Your task to perform on an android device: Search for Mexican restaurants on Maps Image 0: 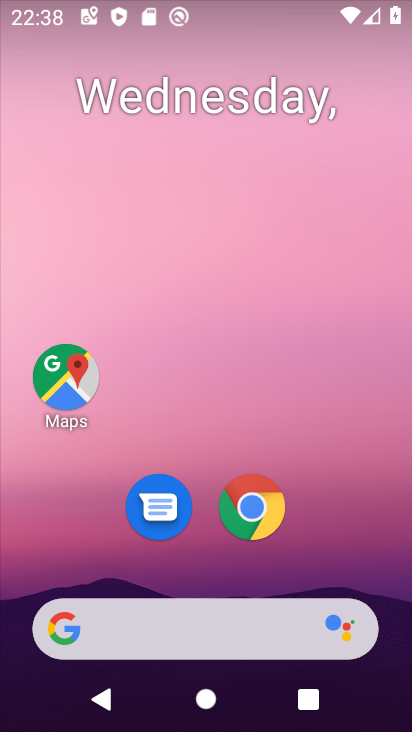
Step 0: drag from (320, 485) to (318, 180)
Your task to perform on an android device: Search for Mexican restaurants on Maps Image 1: 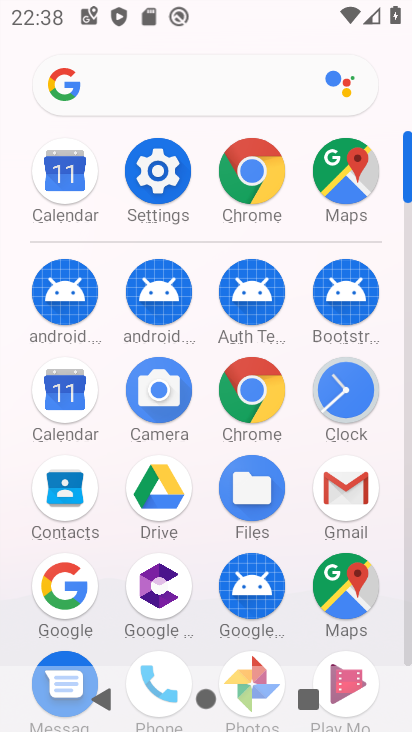
Step 1: click (343, 571)
Your task to perform on an android device: Search for Mexican restaurants on Maps Image 2: 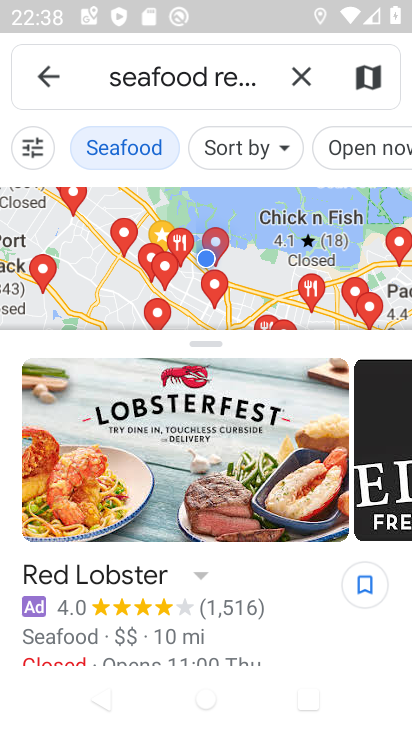
Step 2: click (304, 77)
Your task to perform on an android device: Search for Mexican restaurants on Maps Image 3: 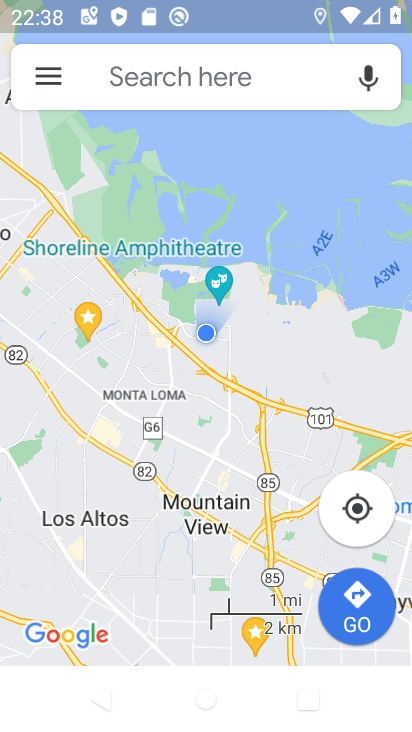
Step 3: click (177, 78)
Your task to perform on an android device: Search for Mexican restaurants on Maps Image 4: 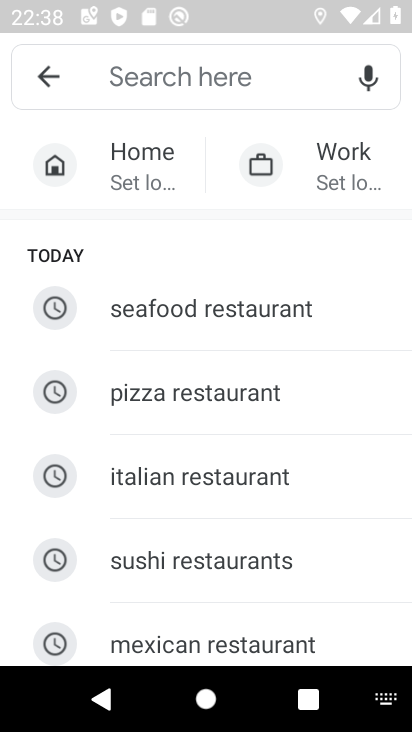
Step 4: click (270, 645)
Your task to perform on an android device: Search for Mexican restaurants on Maps Image 5: 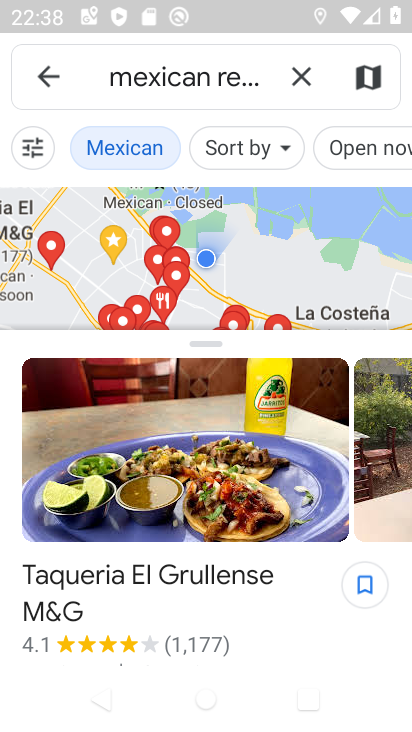
Step 5: task complete